Your task to perform on an android device: open the mobile data screen to see how much data has been used Image 0: 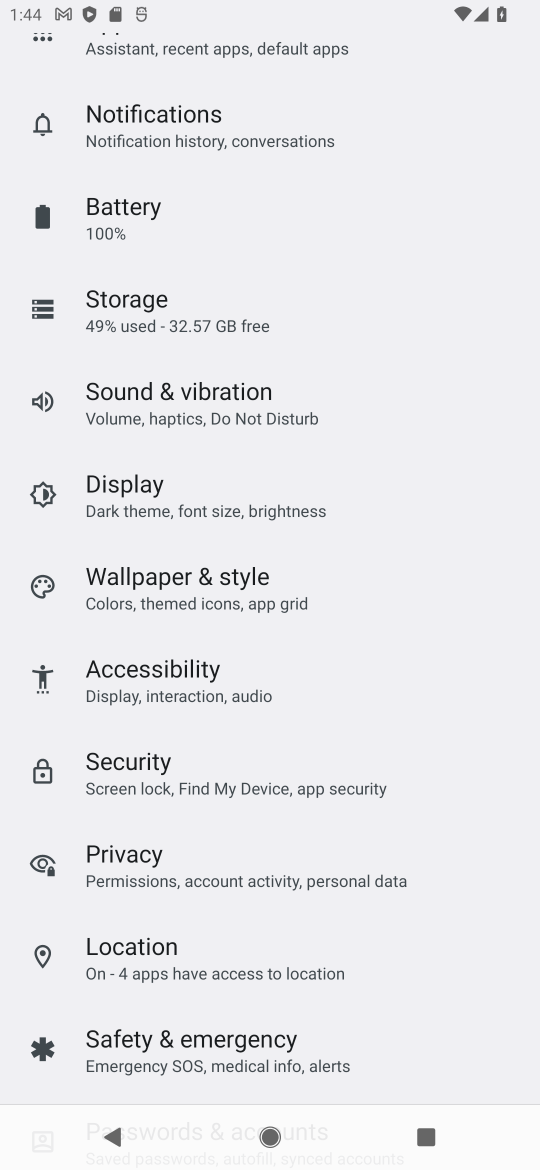
Step 0: press home button
Your task to perform on an android device: open the mobile data screen to see how much data has been used Image 1: 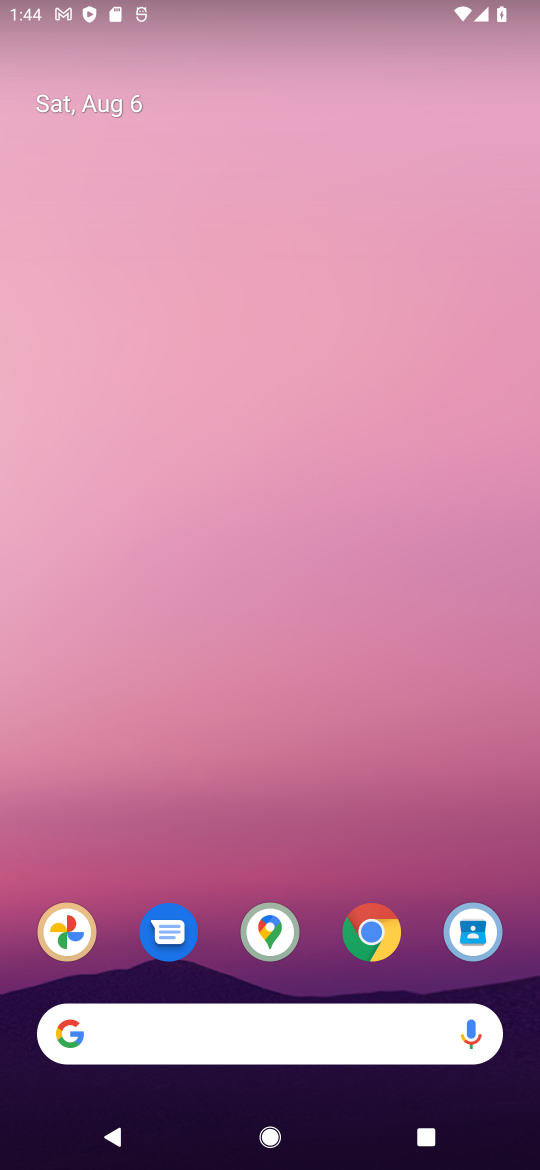
Step 1: drag from (323, 962) to (334, 127)
Your task to perform on an android device: open the mobile data screen to see how much data has been used Image 2: 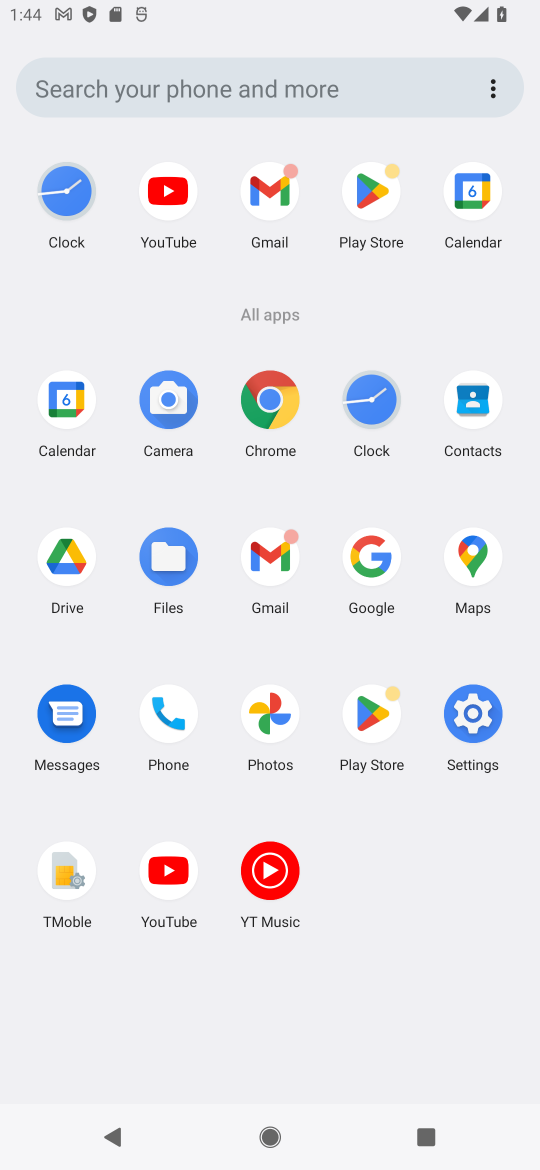
Step 2: drag from (235, 0) to (238, 963)
Your task to perform on an android device: open the mobile data screen to see how much data has been used Image 3: 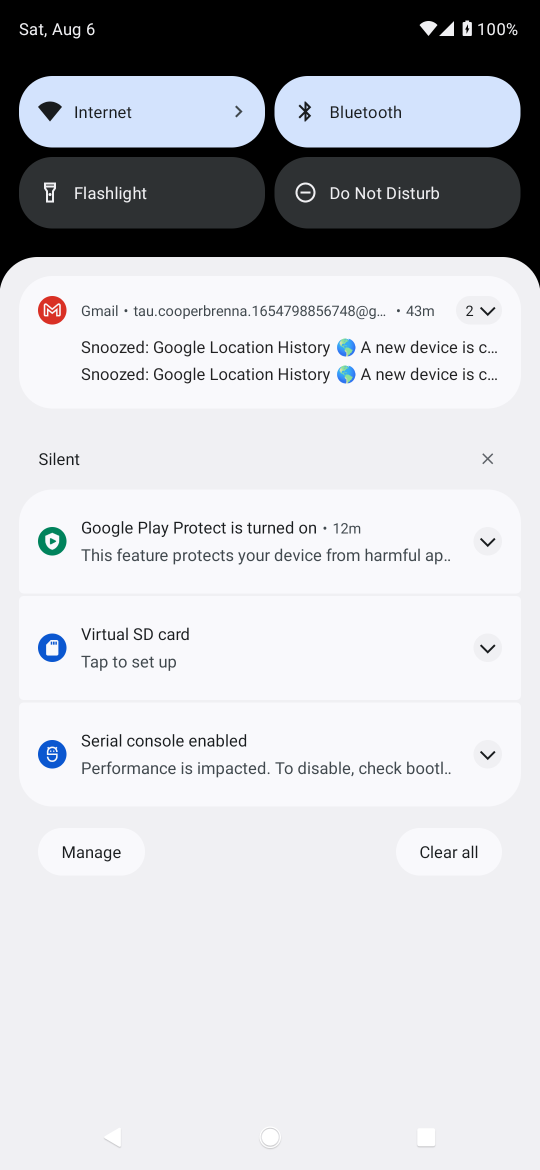
Step 3: click (111, 113)
Your task to perform on an android device: open the mobile data screen to see how much data has been used Image 4: 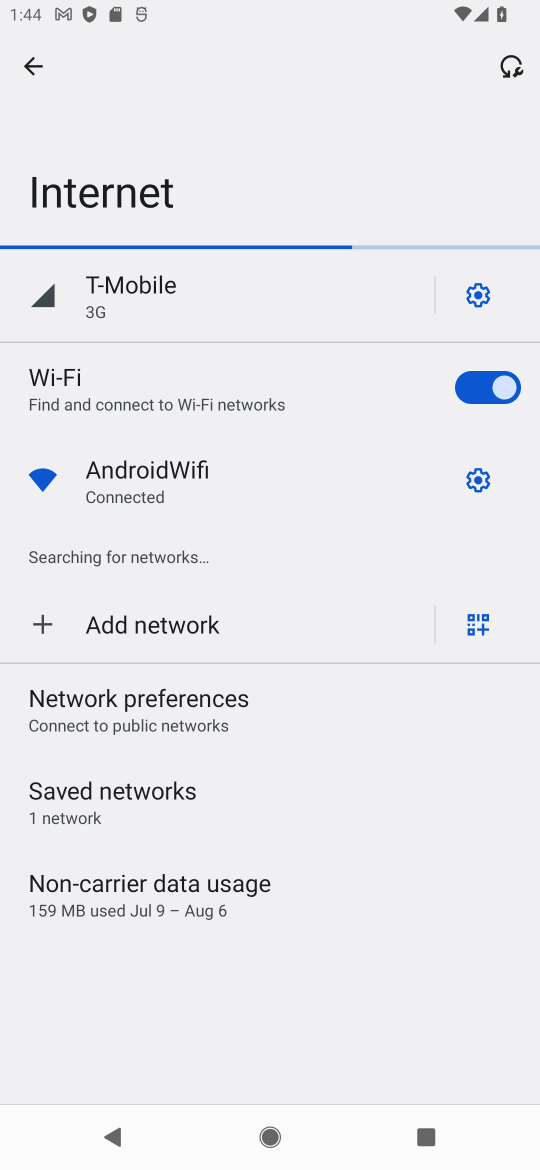
Step 4: task complete